Your task to perform on an android device: turn off wifi Image 0: 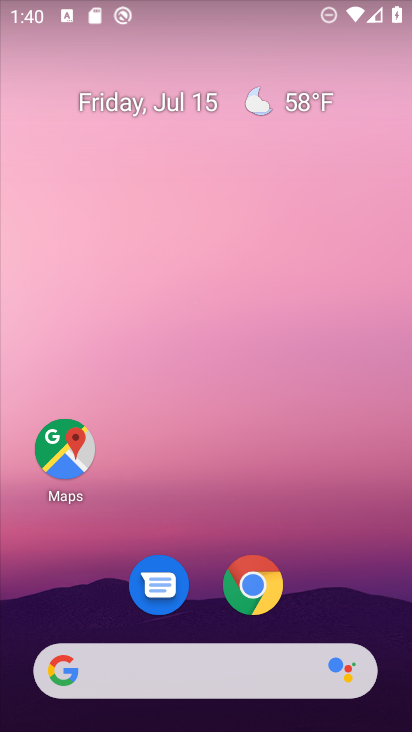
Step 0: drag from (194, 497) to (209, 75)
Your task to perform on an android device: turn off wifi Image 1: 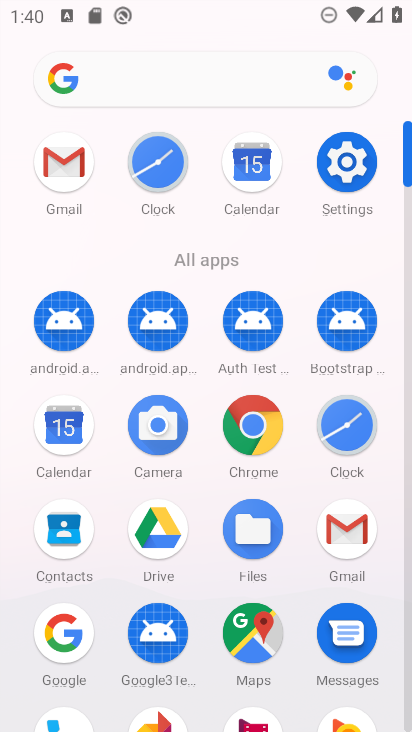
Step 1: click (344, 173)
Your task to perform on an android device: turn off wifi Image 2: 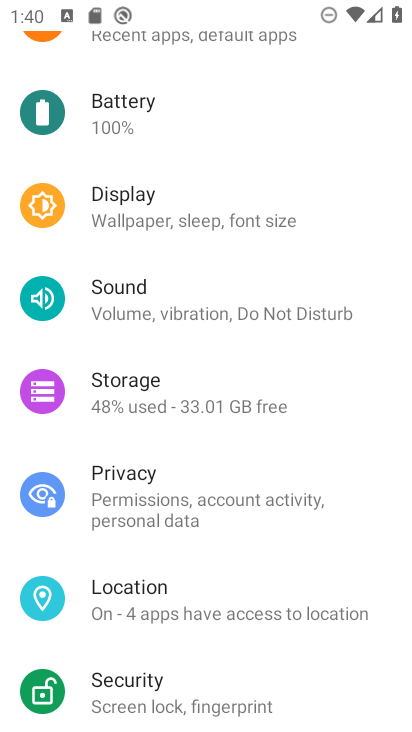
Step 2: drag from (228, 166) to (222, 635)
Your task to perform on an android device: turn off wifi Image 3: 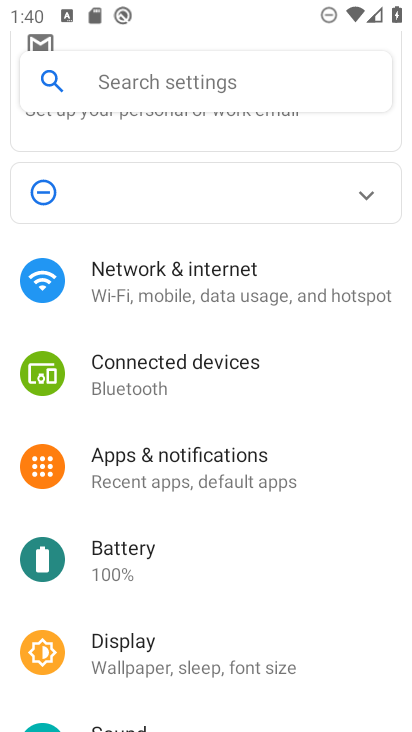
Step 3: click (265, 287)
Your task to perform on an android device: turn off wifi Image 4: 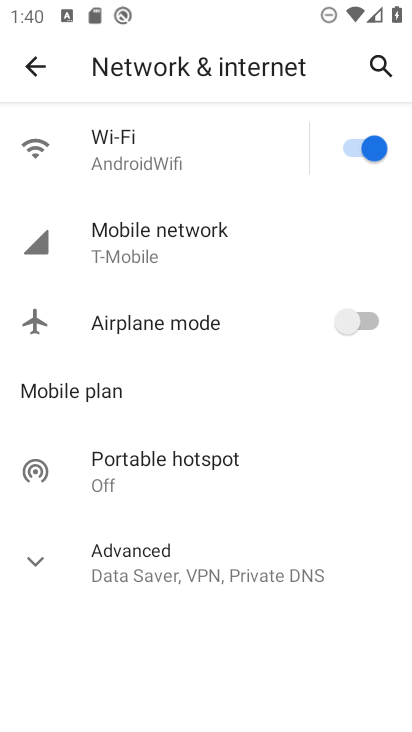
Step 4: click (357, 135)
Your task to perform on an android device: turn off wifi Image 5: 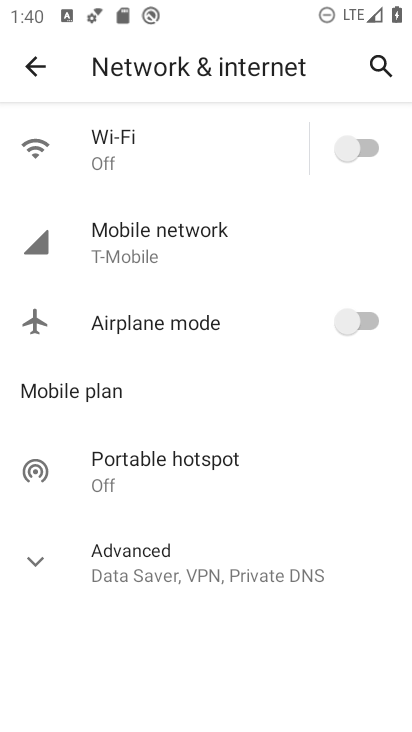
Step 5: task complete